Your task to perform on an android device: check android version Image 0: 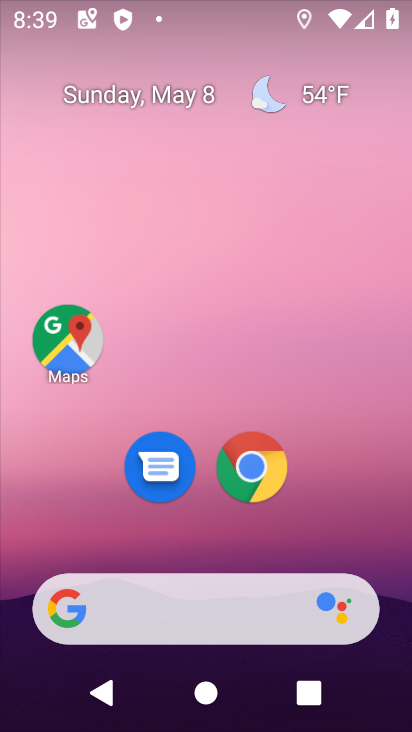
Step 0: drag from (396, 635) to (338, 124)
Your task to perform on an android device: check android version Image 1: 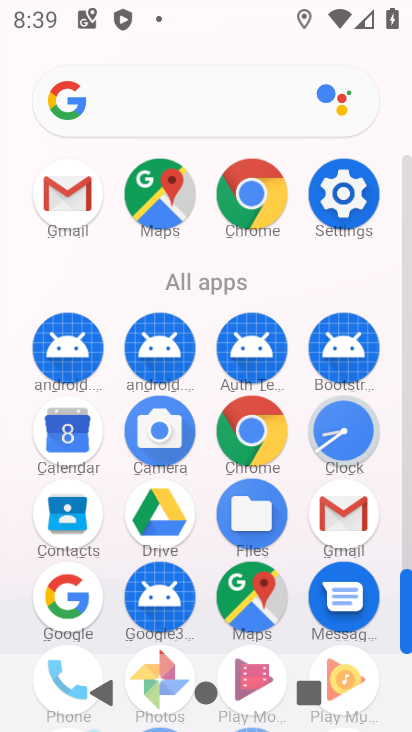
Step 1: drag from (407, 548) to (397, 422)
Your task to perform on an android device: check android version Image 2: 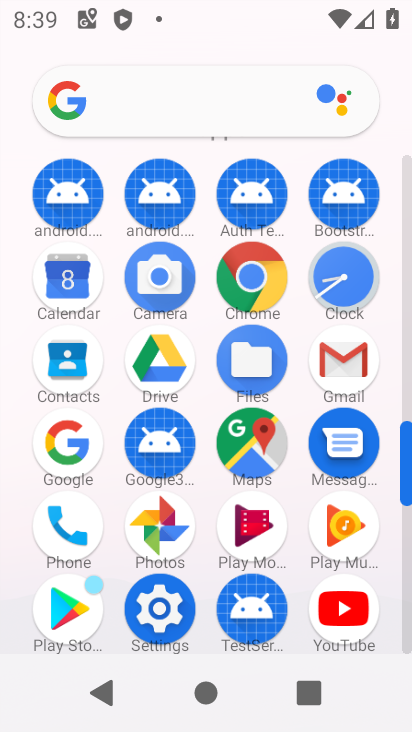
Step 2: click (158, 607)
Your task to perform on an android device: check android version Image 3: 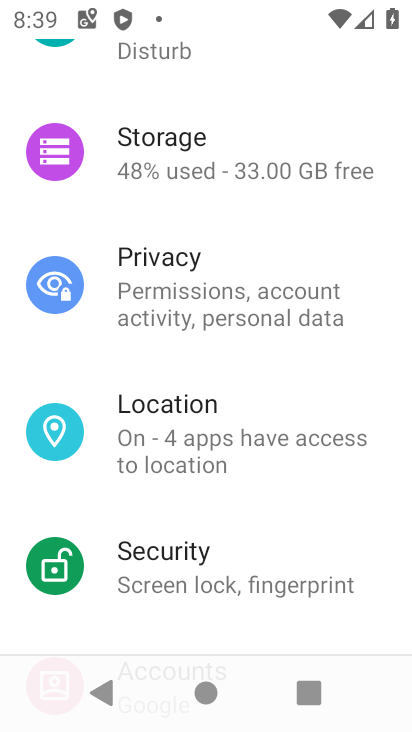
Step 3: drag from (274, 551) to (304, 177)
Your task to perform on an android device: check android version Image 4: 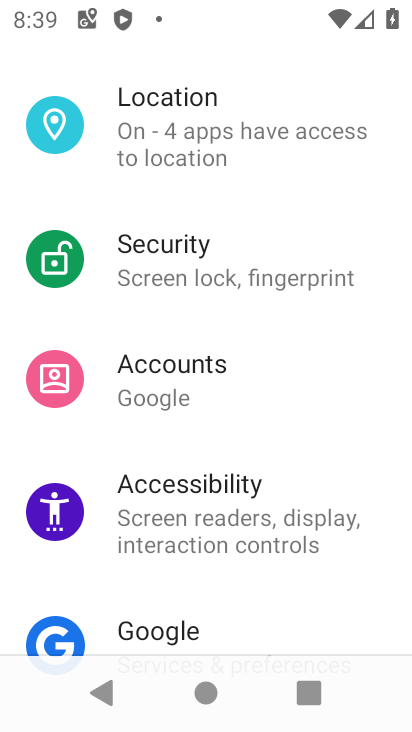
Step 4: drag from (295, 588) to (312, 115)
Your task to perform on an android device: check android version Image 5: 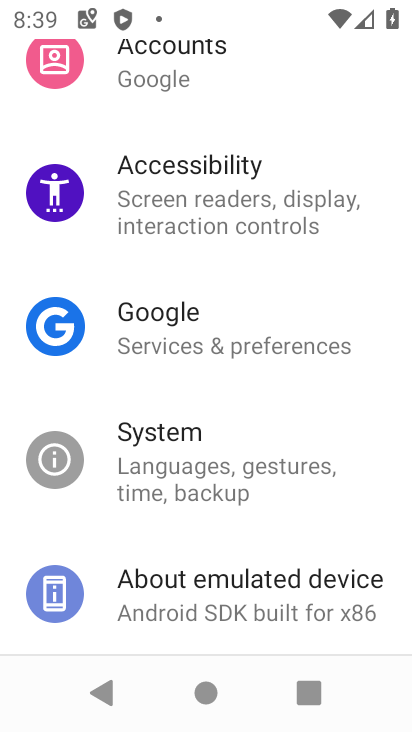
Step 5: click (167, 578)
Your task to perform on an android device: check android version Image 6: 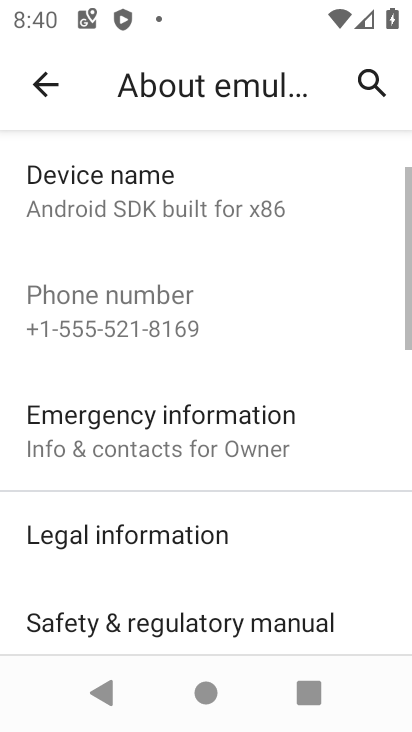
Step 6: drag from (268, 577) to (267, 195)
Your task to perform on an android device: check android version Image 7: 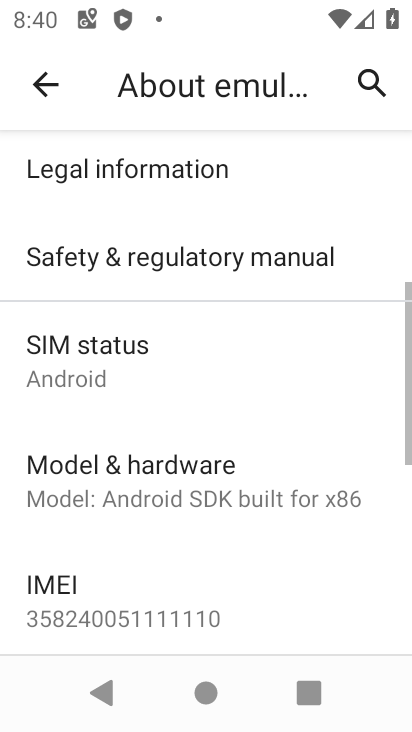
Step 7: drag from (280, 551) to (294, 148)
Your task to perform on an android device: check android version Image 8: 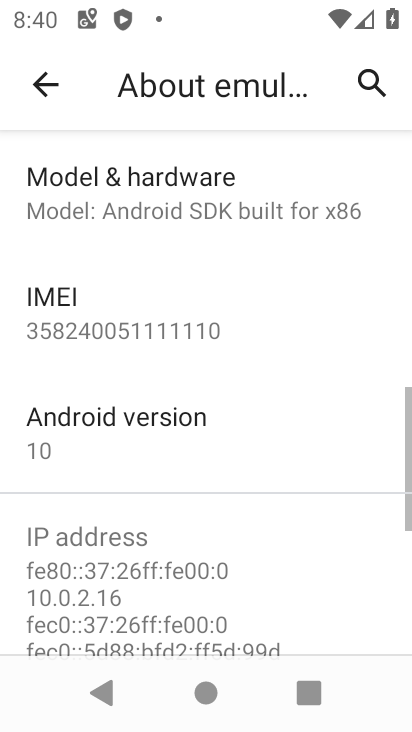
Step 8: click (122, 440)
Your task to perform on an android device: check android version Image 9: 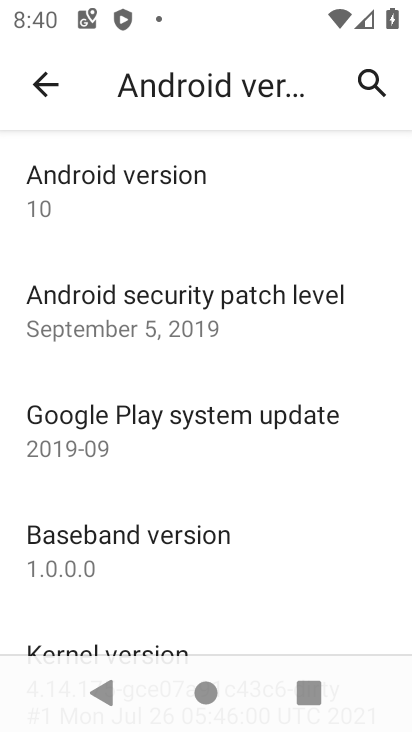
Step 9: task complete